Your task to perform on an android device: Open eBay Image 0: 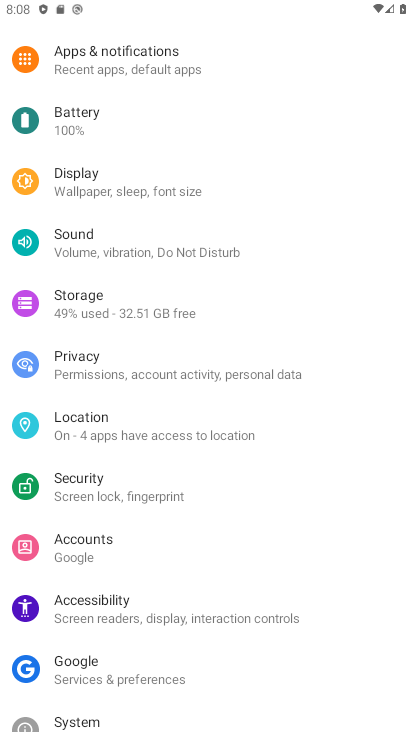
Step 0: press home button
Your task to perform on an android device: Open eBay Image 1: 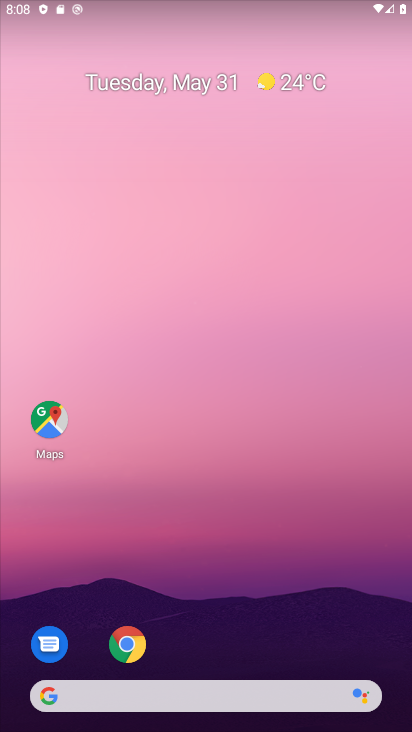
Step 1: drag from (301, 604) to (297, 181)
Your task to perform on an android device: Open eBay Image 2: 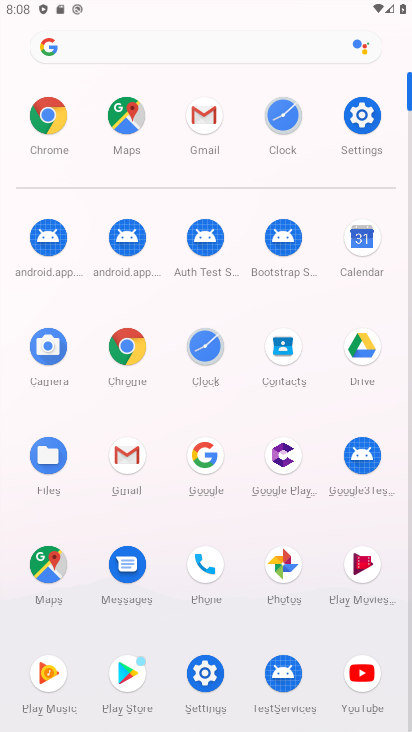
Step 2: click (65, 132)
Your task to perform on an android device: Open eBay Image 3: 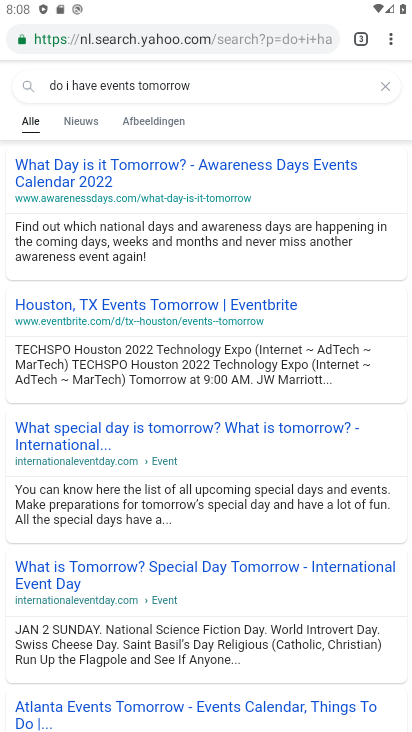
Step 3: click (286, 33)
Your task to perform on an android device: Open eBay Image 4: 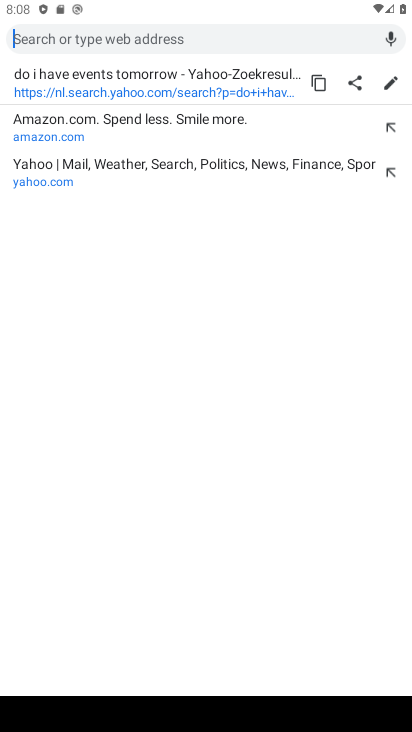
Step 4: type "ebay"
Your task to perform on an android device: Open eBay Image 5: 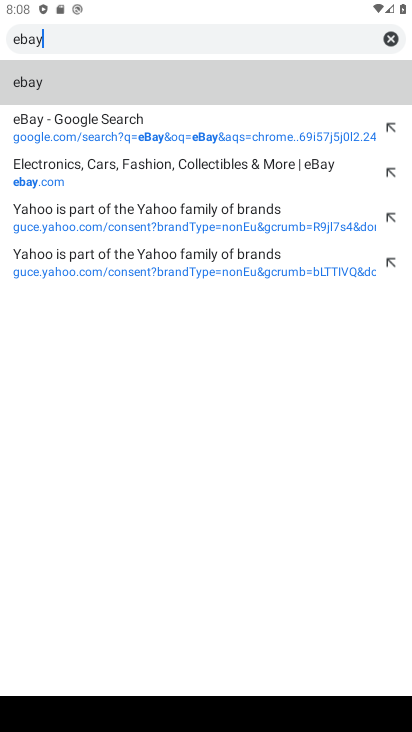
Step 5: click (64, 82)
Your task to perform on an android device: Open eBay Image 6: 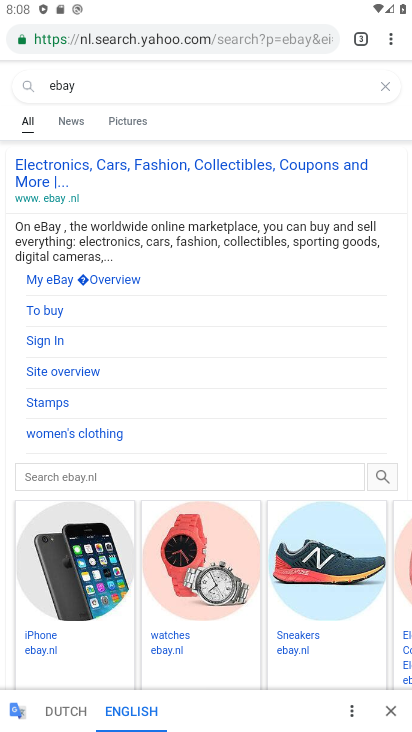
Step 6: click (92, 176)
Your task to perform on an android device: Open eBay Image 7: 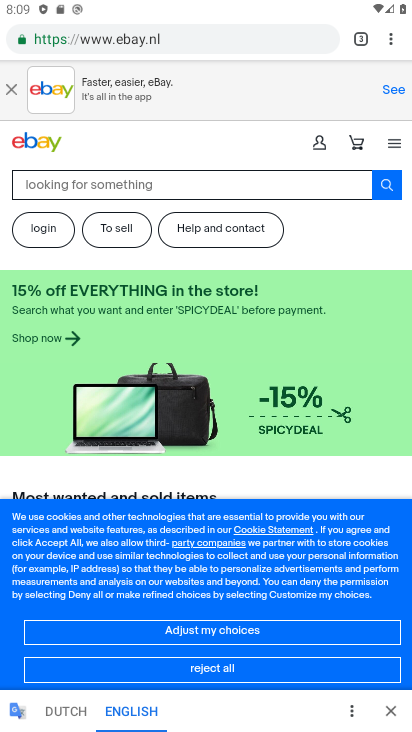
Step 7: task complete